Your task to perform on an android device: Go to battery settings Image 0: 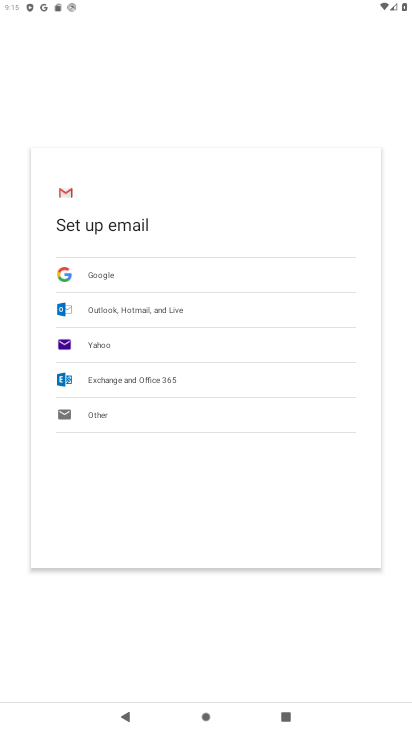
Step 0: press home button
Your task to perform on an android device: Go to battery settings Image 1: 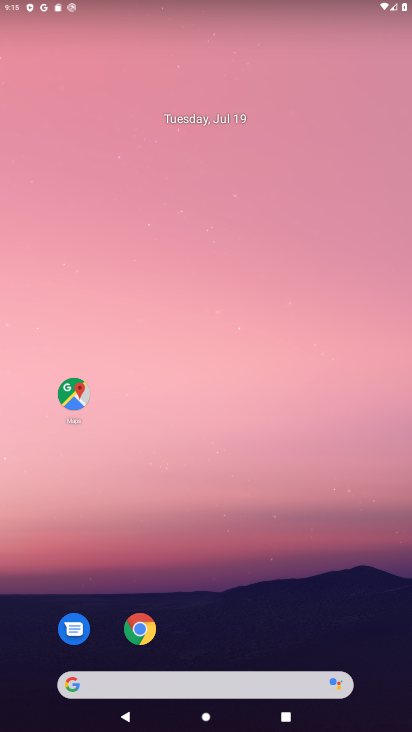
Step 1: drag from (256, 352) to (256, 50)
Your task to perform on an android device: Go to battery settings Image 2: 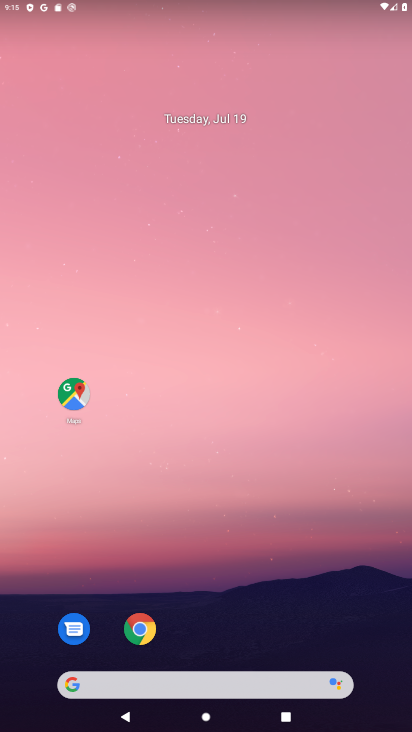
Step 2: drag from (259, 647) to (259, 118)
Your task to perform on an android device: Go to battery settings Image 3: 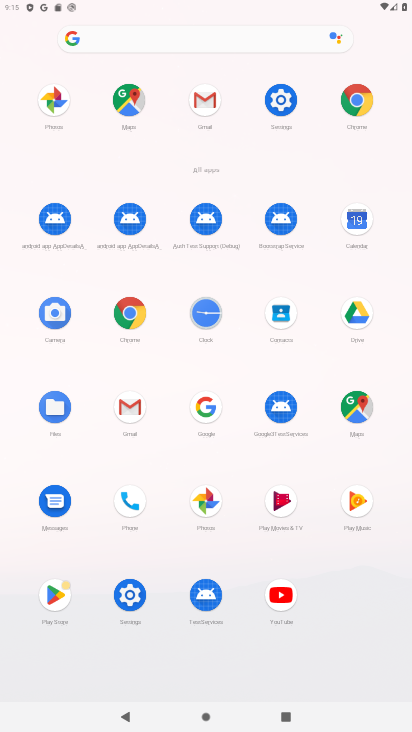
Step 3: click (276, 108)
Your task to perform on an android device: Go to battery settings Image 4: 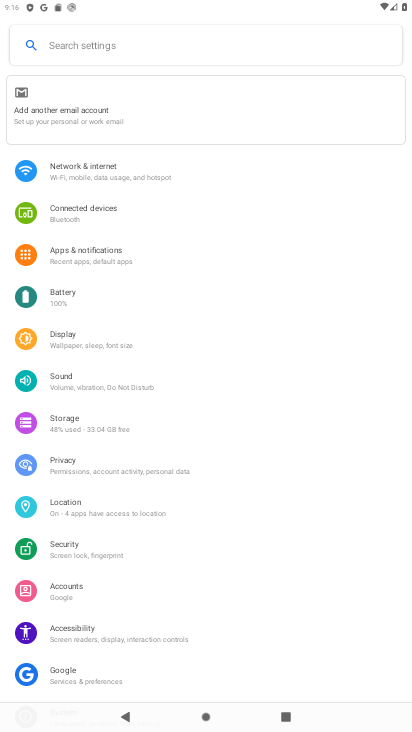
Step 4: click (107, 292)
Your task to perform on an android device: Go to battery settings Image 5: 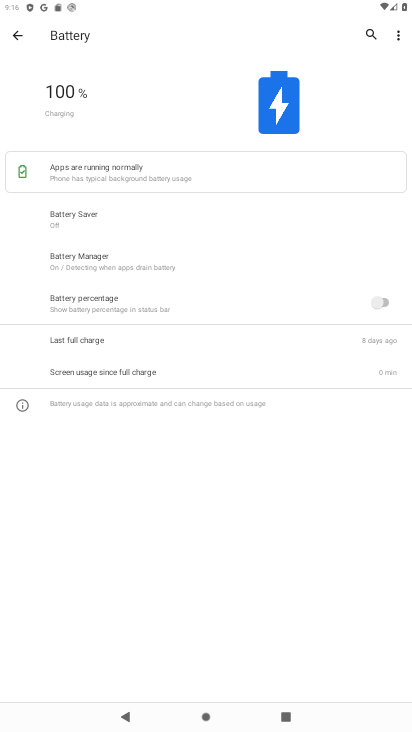
Step 5: task complete